Your task to perform on an android device: Go to calendar. Show me events next week Image 0: 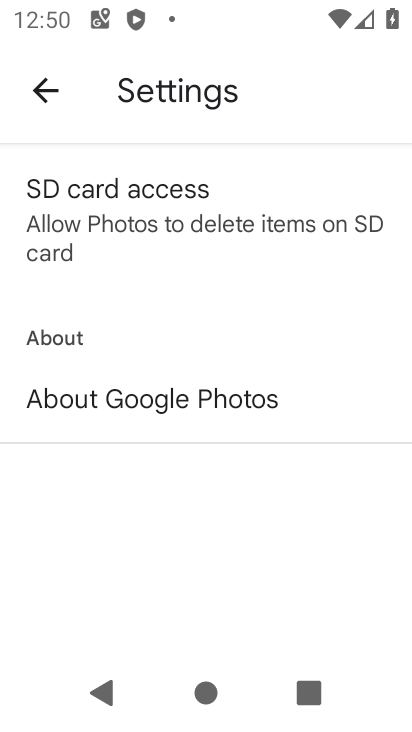
Step 0: press home button
Your task to perform on an android device: Go to calendar. Show me events next week Image 1: 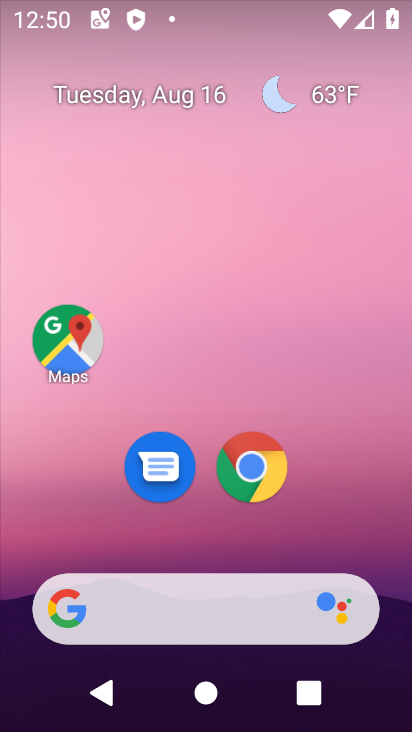
Step 1: drag from (379, 554) to (394, 151)
Your task to perform on an android device: Go to calendar. Show me events next week Image 2: 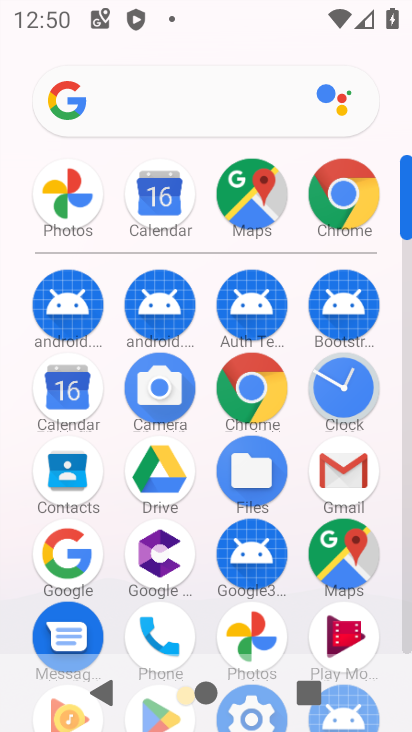
Step 2: click (73, 387)
Your task to perform on an android device: Go to calendar. Show me events next week Image 3: 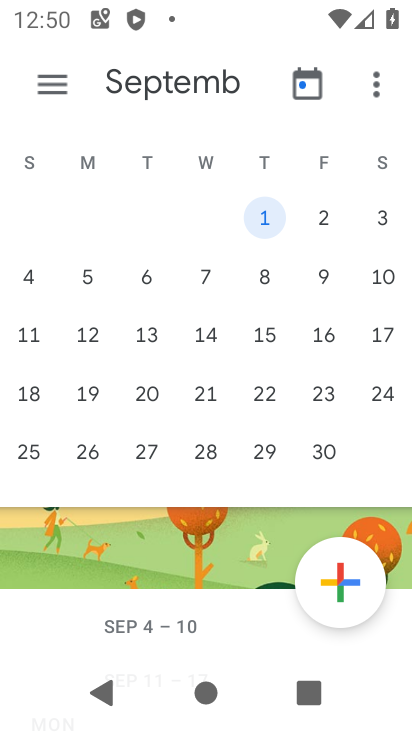
Step 3: drag from (149, 531) to (202, 175)
Your task to perform on an android device: Go to calendar. Show me events next week Image 4: 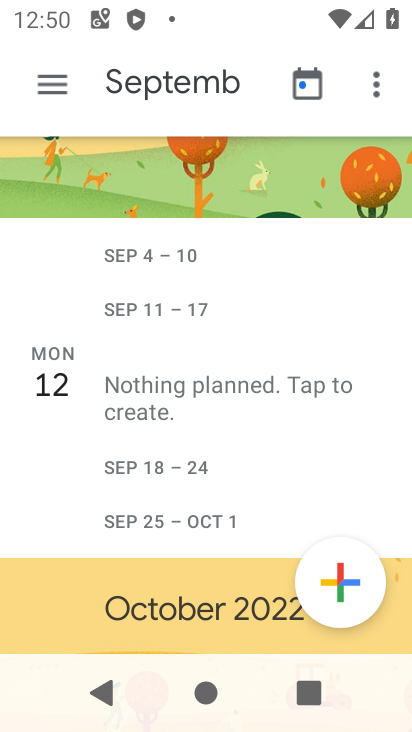
Step 4: drag from (208, 159) to (201, 411)
Your task to perform on an android device: Go to calendar. Show me events next week Image 5: 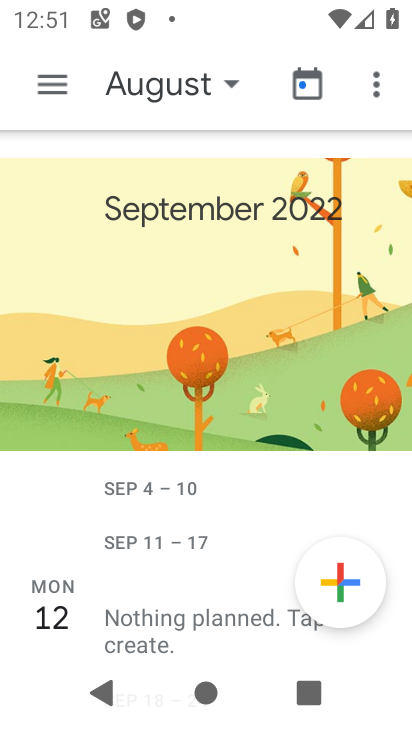
Step 5: click (235, 84)
Your task to perform on an android device: Go to calendar. Show me events next week Image 6: 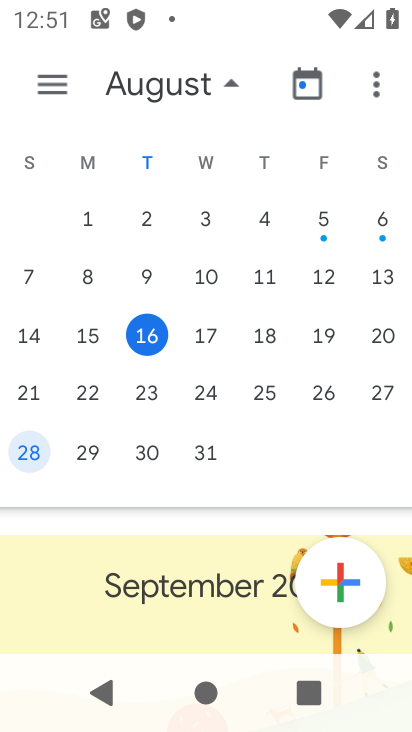
Step 6: click (99, 387)
Your task to perform on an android device: Go to calendar. Show me events next week Image 7: 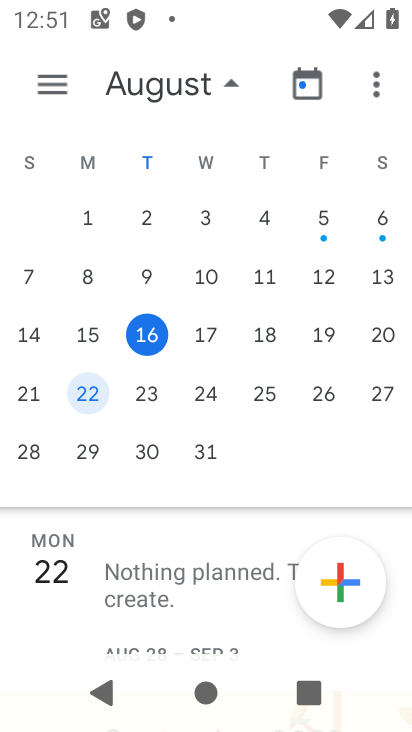
Step 7: task complete